Your task to perform on an android device: Search for seafood restaurants on Google Maps Image 0: 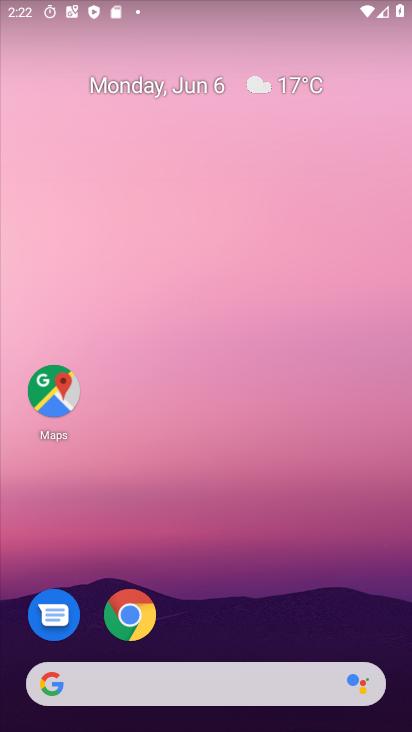
Step 0: drag from (201, 647) to (228, 121)
Your task to perform on an android device: Search for seafood restaurants on Google Maps Image 1: 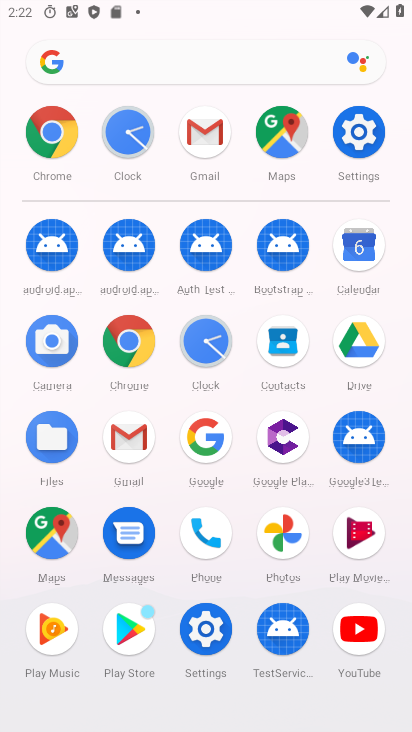
Step 1: click (65, 519)
Your task to perform on an android device: Search for seafood restaurants on Google Maps Image 2: 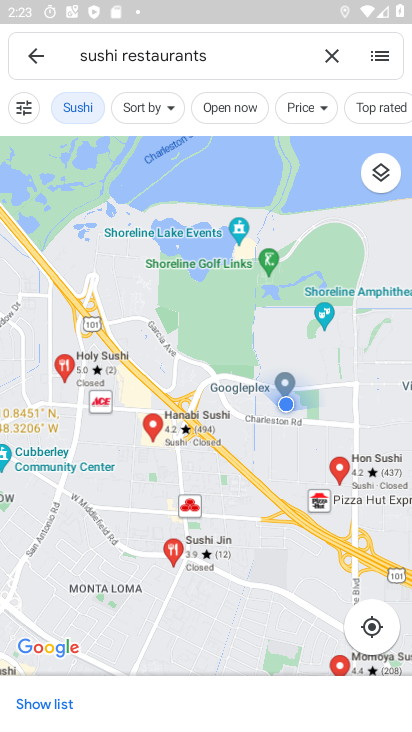
Step 2: click (325, 51)
Your task to perform on an android device: Search for seafood restaurants on Google Maps Image 3: 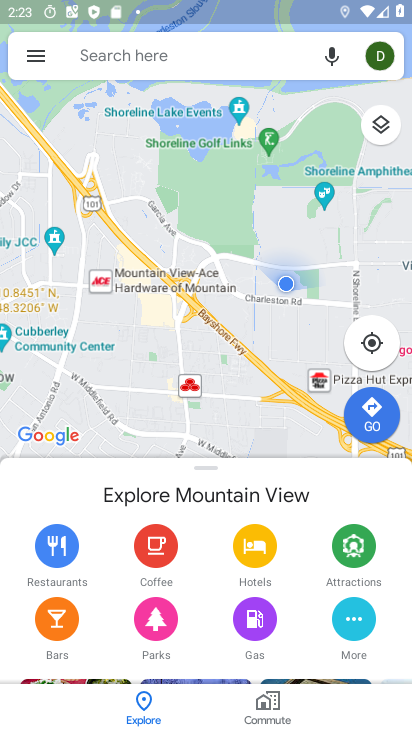
Step 3: click (143, 53)
Your task to perform on an android device: Search for seafood restaurants on Google Maps Image 4: 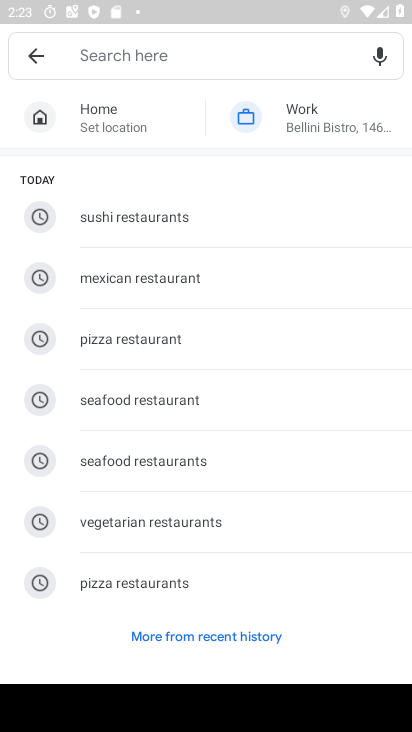
Step 4: click (119, 409)
Your task to perform on an android device: Search for seafood restaurants on Google Maps Image 5: 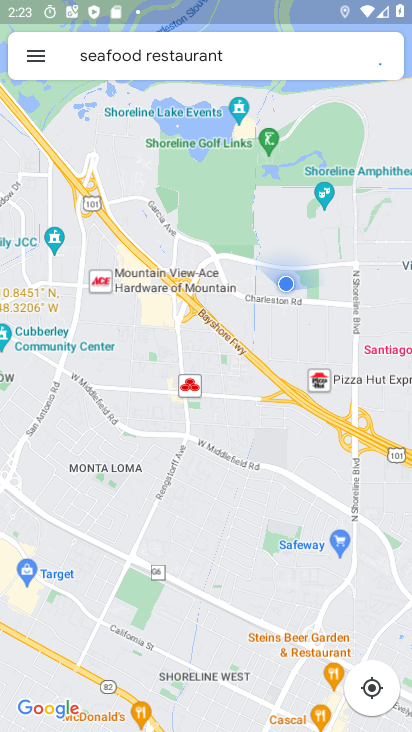
Step 5: task complete